Your task to perform on an android device: turn off data saver in the chrome app Image 0: 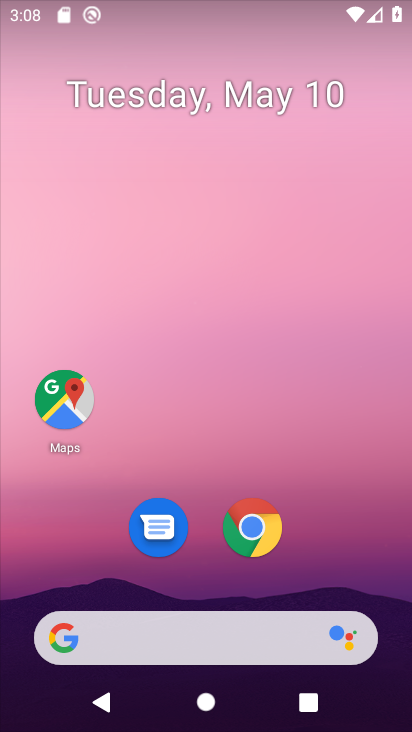
Step 0: click (253, 529)
Your task to perform on an android device: turn off data saver in the chrome app Image 1: 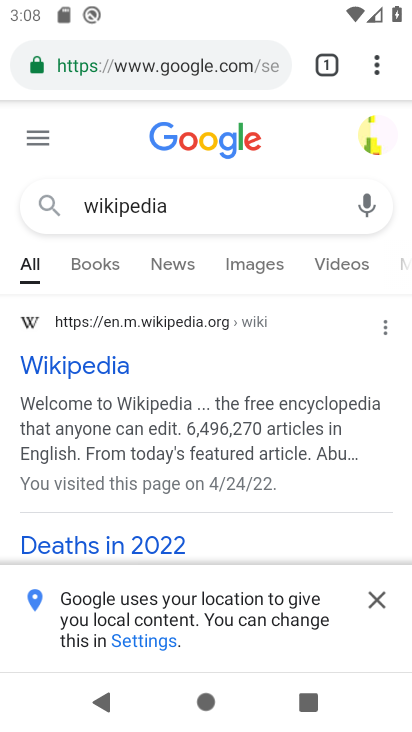
Step 1: click (373, 62)
Your task to perform on an android device: turn off data saver in the chrome app Image 2: 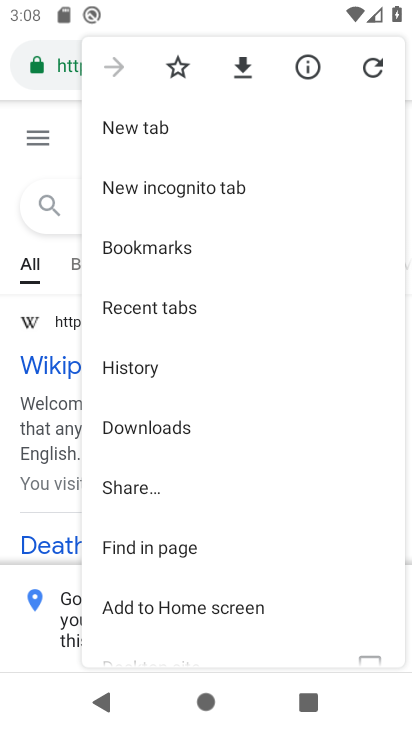
Step 2: drag from (306, 581) to (326, 271)
Your task to perform on an android device: turn off data saver in the chrome app Image 3: 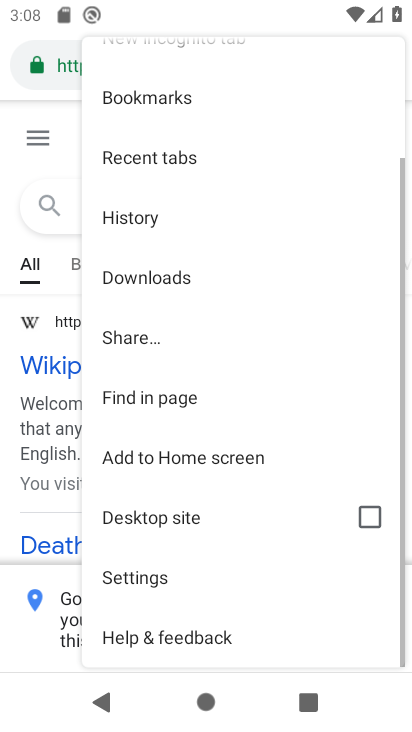
Step 3: click (120, 569)
Your task to perform on an android device: turn off data saver in the chrome app Image 4: 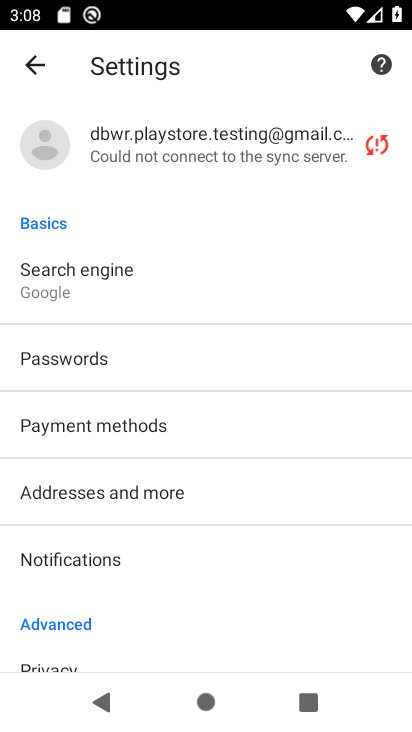
Step 4: drag from (206, 625) to (258, 463)
Your task to perform on an android device: turn off data saver in the chrome app Image 5: 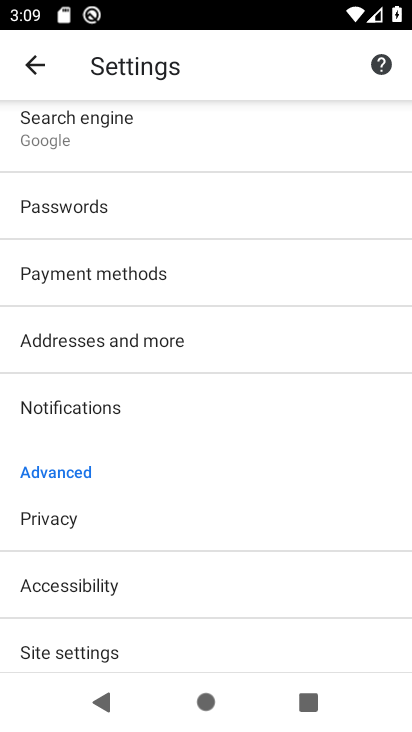
Step 5: click (57, 642)
Your task to perform on an android device: turn off data saver in the chrome app Image 6: 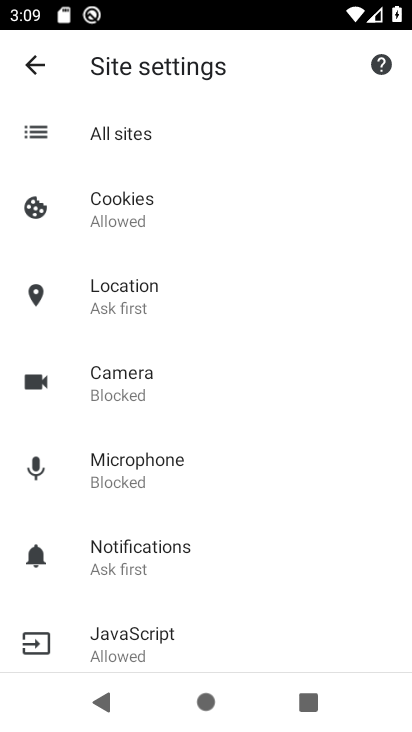
Step 6: click (39, 67)
Your task to perform on an android device: turn off data saver in the chrome app Image 7: 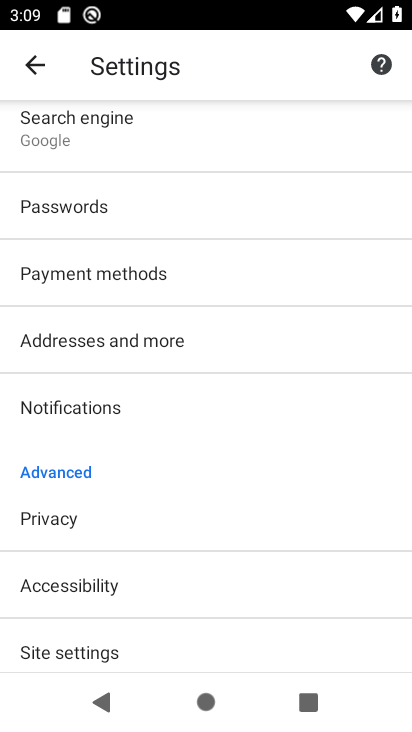
Step 7: drag from (211, 614) to (226, 360)
Your task to perform on an android device: turn off data saver in the chrome app Image 8: 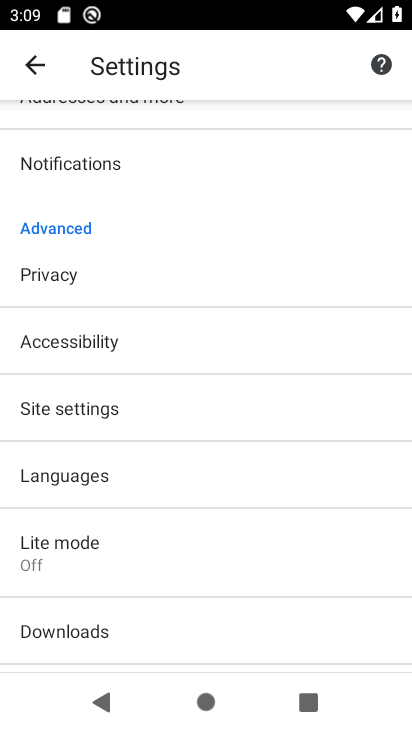
Step 8: click (82, 550)
Your task to perform on an android device: turn off data saver in the chrome app Image 9: 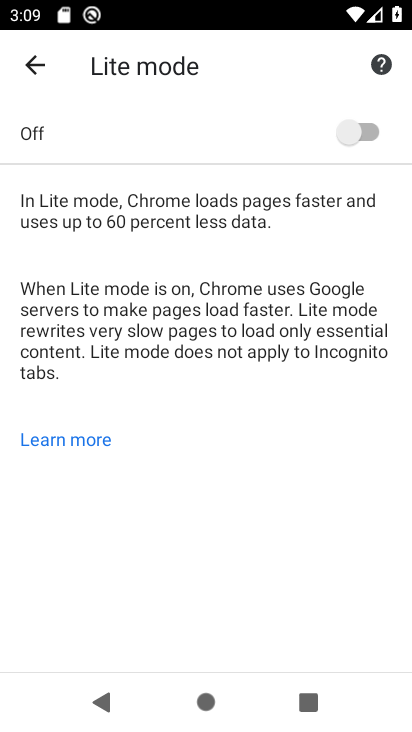
Step 9: task complete